Your task to perform on an android device: read, delete, or share a saved page in the chrome app Image 0: 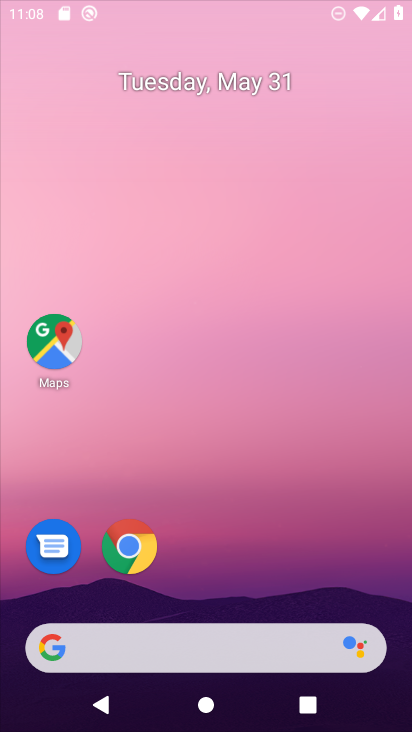
Step 0: drag from (293, 600) to (366, 87)
Your task to perform on an android device: read, delete, or share a saved page in the chrome app Image 1: 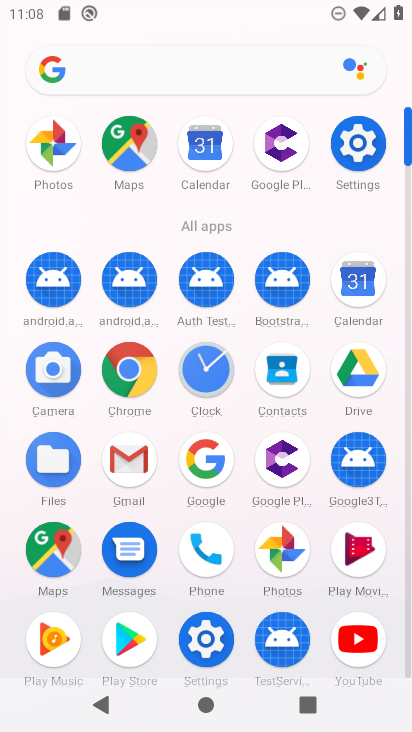
Step 1: click (134, 376)
Your task to perform on an android device: read, delete, or share a saved page in the chrome app Image 2: 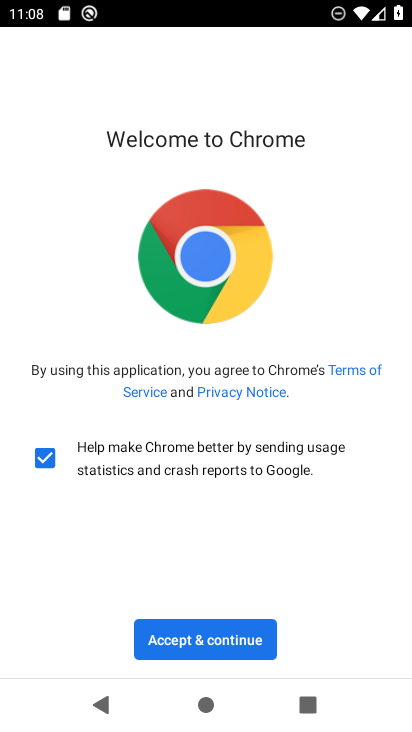
Step 2: click (234, 623)
Your task to perform on an android device: read, delete, or share a saved page in the chrome app Image 3: 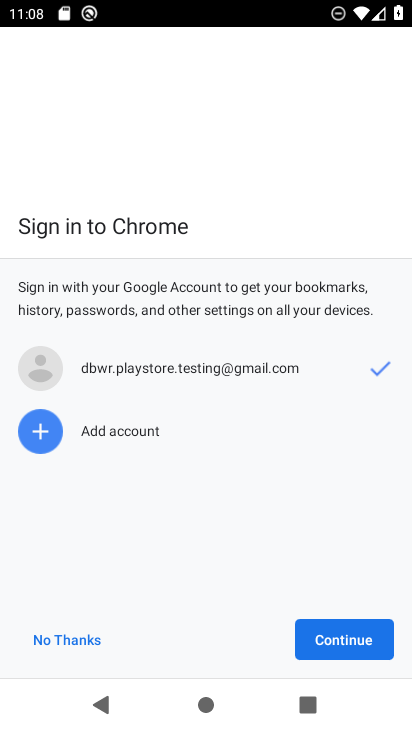
Step 3: click (91, 644)
Your task to perform on an android device: read, delete, or share a saved page in the chrome app Image 4: 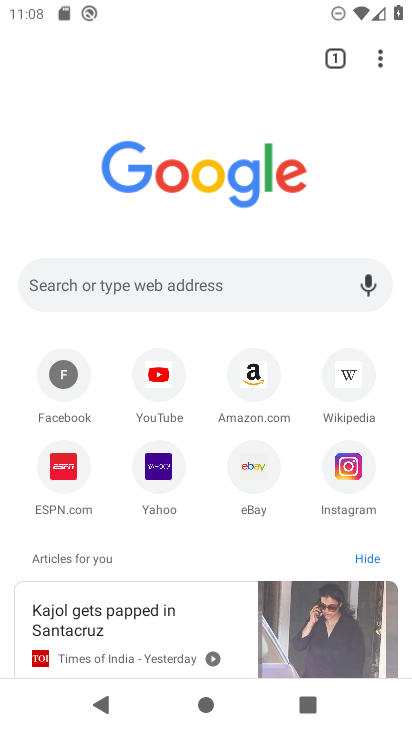
Step 4: task complete